Your task to perform on an android device: Turn on the flashlight Image 0: 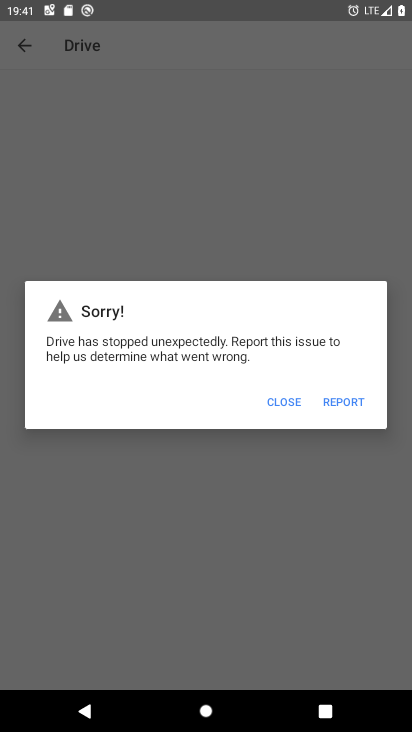
Step 0: press home button
Your task to perform on an android device: Turn on the flashlight Image 1: 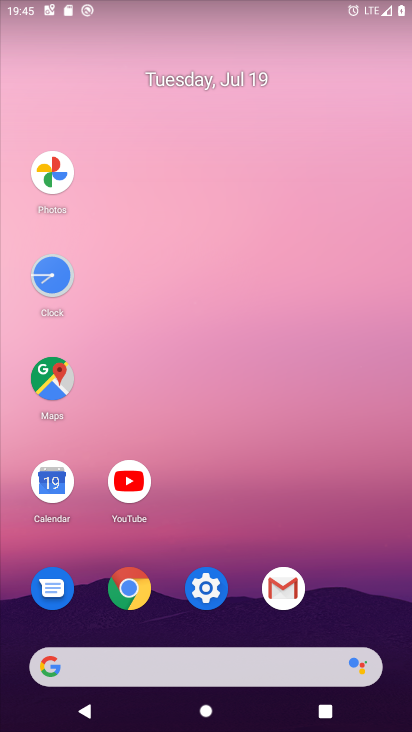
Step 1: click (199, 581)
Your task to perform on an android device: Turn on the flashlight Image 2: 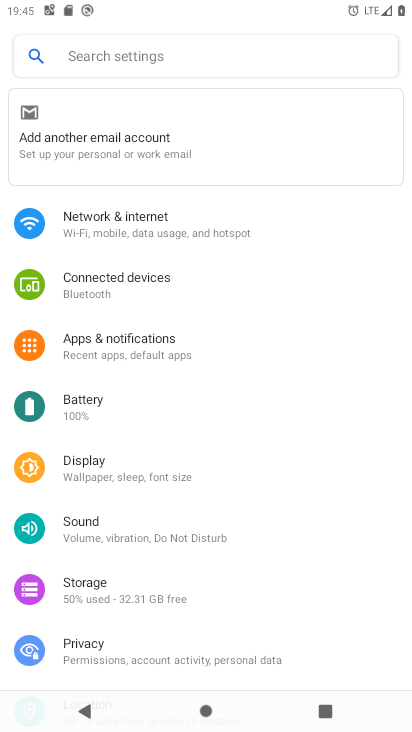
Step 2: click (65, 404)
Your task to perform on an android device: Turn on the flashlight Image 3: 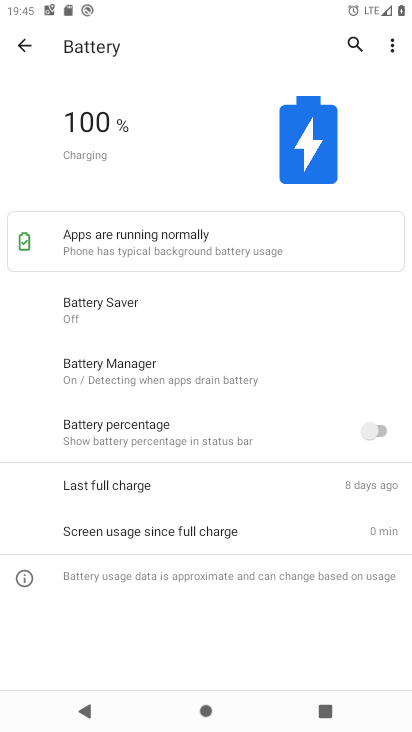
Step 3: task complete